Your task to perform on an android device: Is it going to rain this weekend? Image 0: 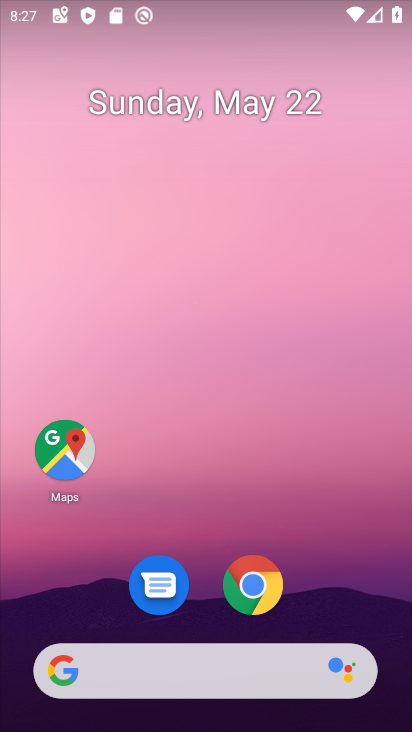
Step 0: click (209, 670)
Your task to perform on an android device: Is it going to rain this weekend? Image 1: 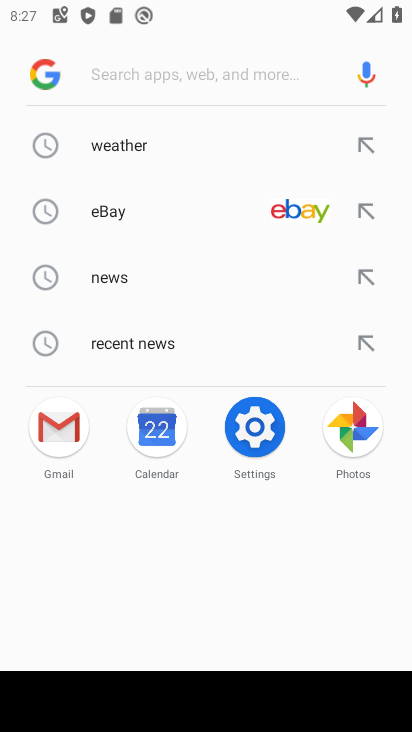
Step 1: click (83, 145)
Your task to perform on an android device: Is it going to rain this weekend? Image 2: 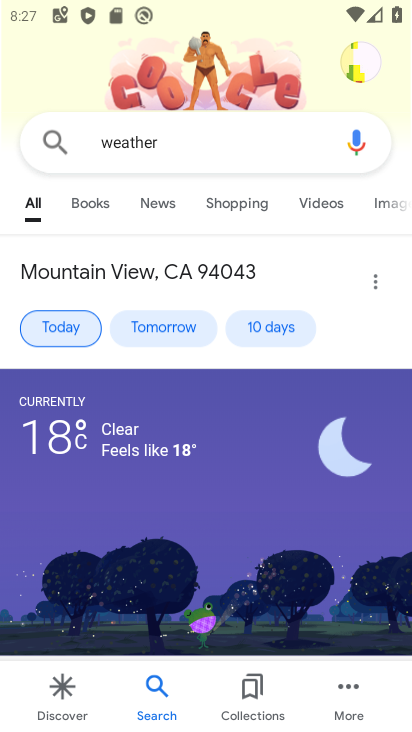
Step 2: click (74, 318)
Your task to perform on an android device: Is it going to rain this weekend? Image 3: 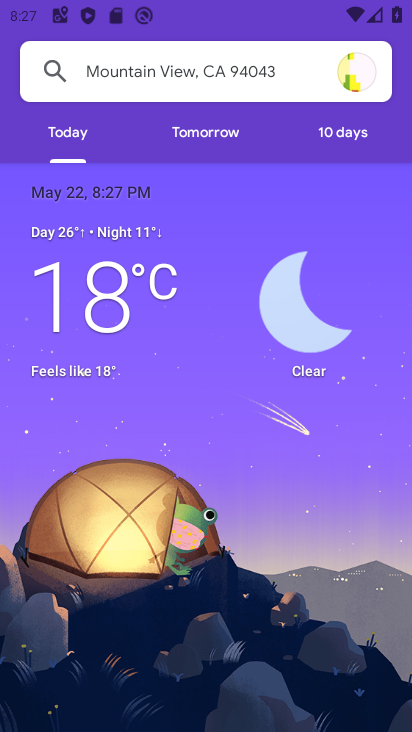
Step 3: click (317, 131)
Your task to perform on an android device: Is it going to rain this weekend? Image 4: 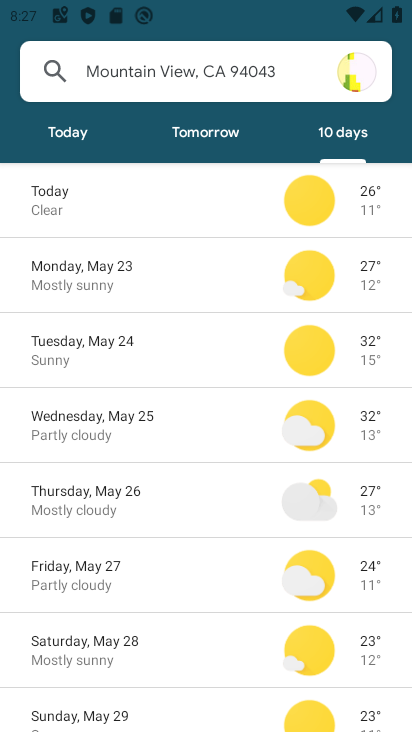
Step 4: click (71, 644)
Your task to perform on an android device: Is it going to rain this weekend? Image 5: 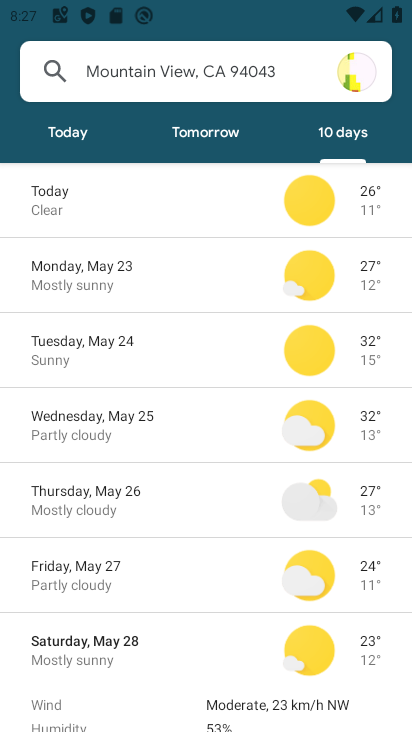
Step 5: task complete